Your task to perform on an android device: Open Yahoo.com Image 0: 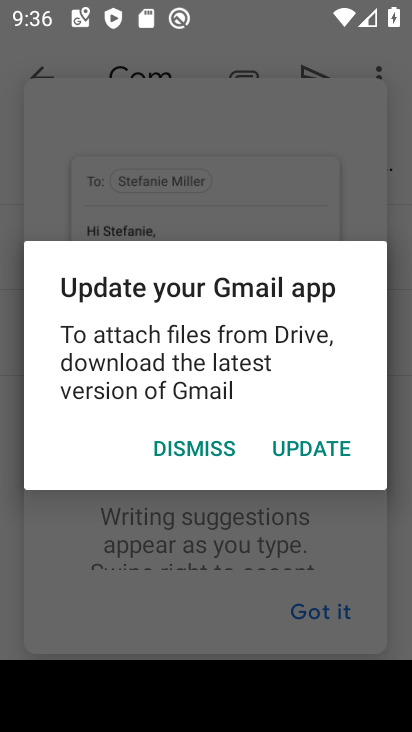
Step 0: press home button
Your task to perform on an android device: Open Yahoo.com Image 1: 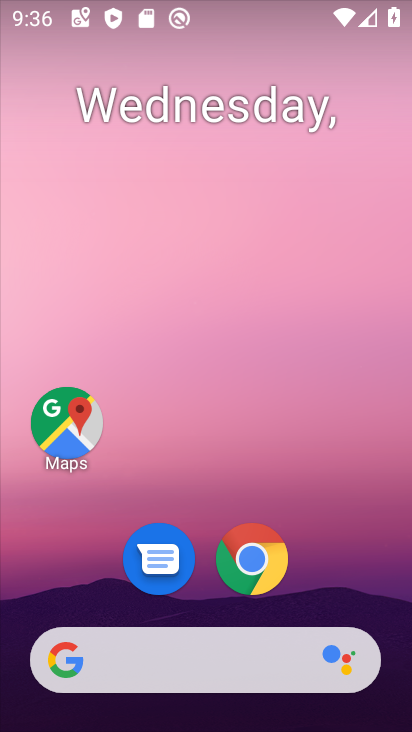
Step 1: click (241, 576)
Your task to perform on an android device: Open Yahoo.com Image 2: 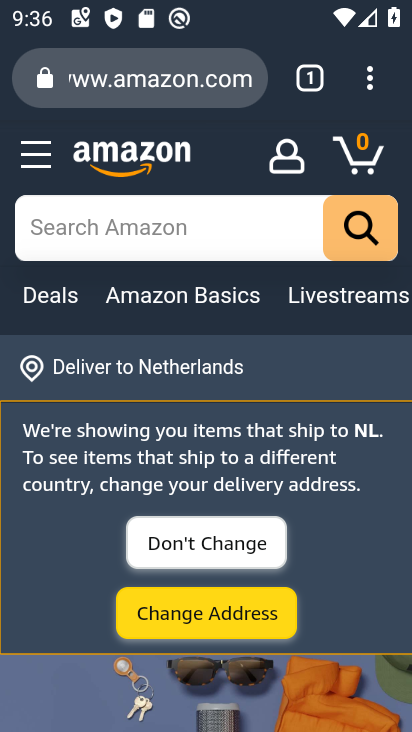
Step 2: click (149, 73)
Your task to perform on an android device: Open Yahoo.com Image 3: 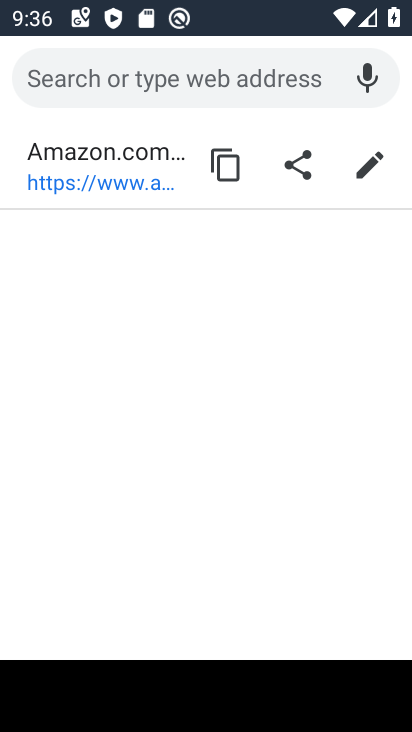
Step 3: type "yahoo.com"
Your task to perform on an android device: Open Yahoo.com Image 4: 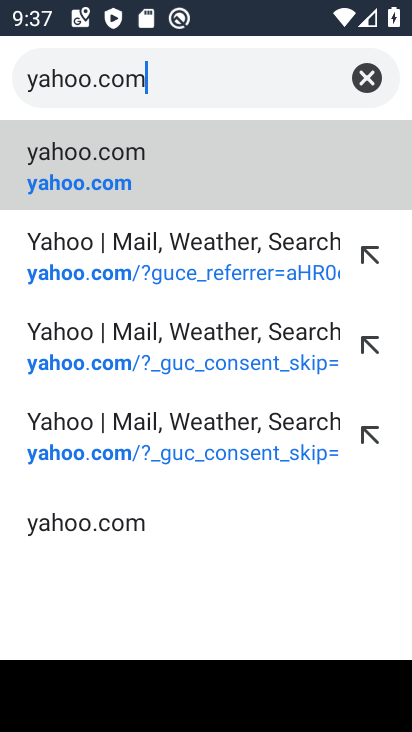
Step 4: click (350, 152)
Your task to perform on an android device: Open Yahoo.com Image 5: 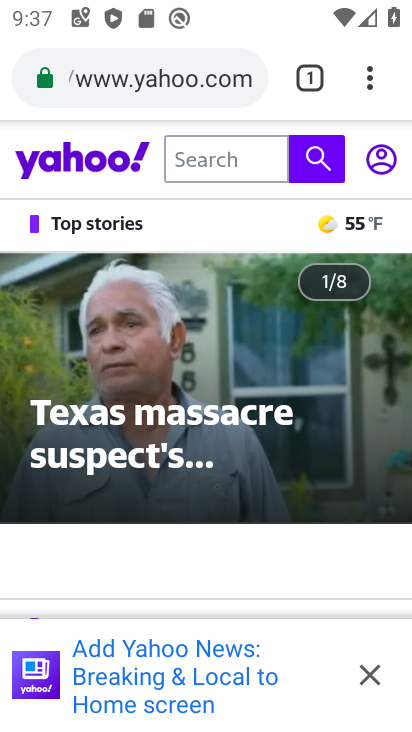
Step 5: task complete